Your task to perform on an android device: Open Reddit.com Image 0: 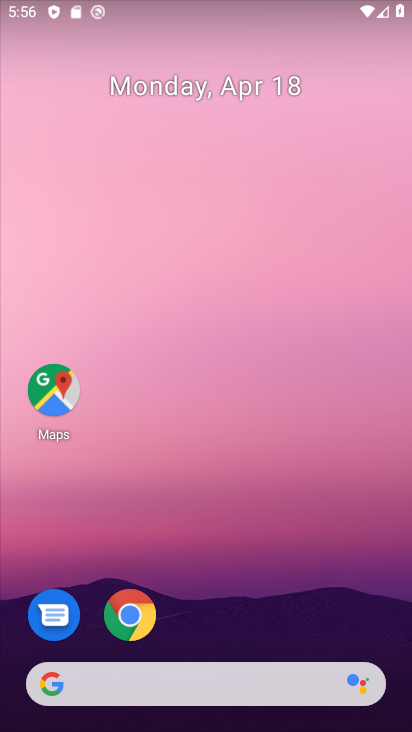
Step 0: drag from (221, 596) to (227, 1)
Your task to perform on an android device: Open Reddit.com Image 1: 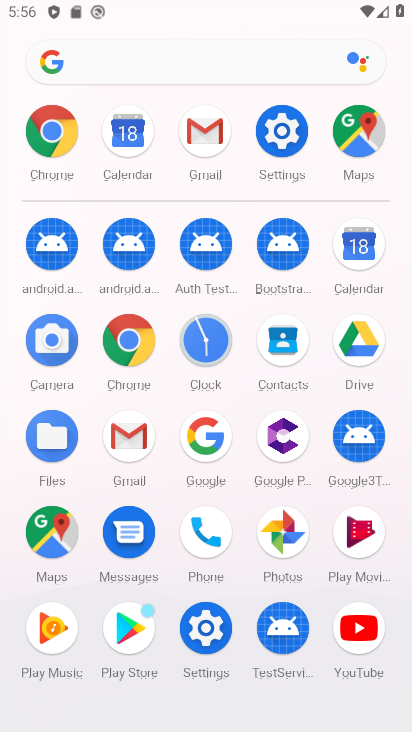
Step 1: click (55, 146)
Your task to perform on an android device: Open Reddit.com Image 2: 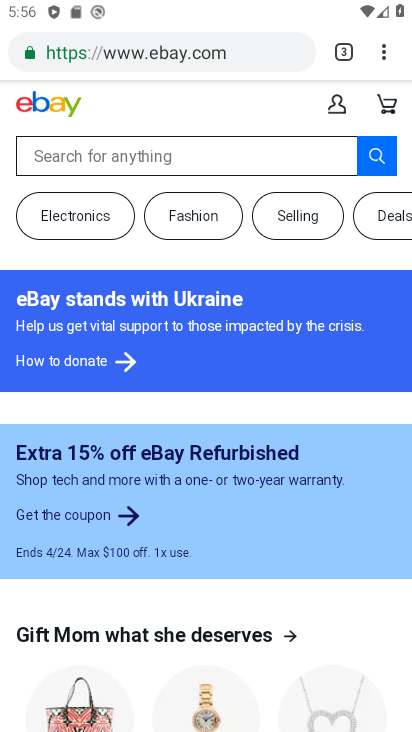
Step 2: click (190, 42)
Your task to perform on an android device: Open Reddit.com Image 3: 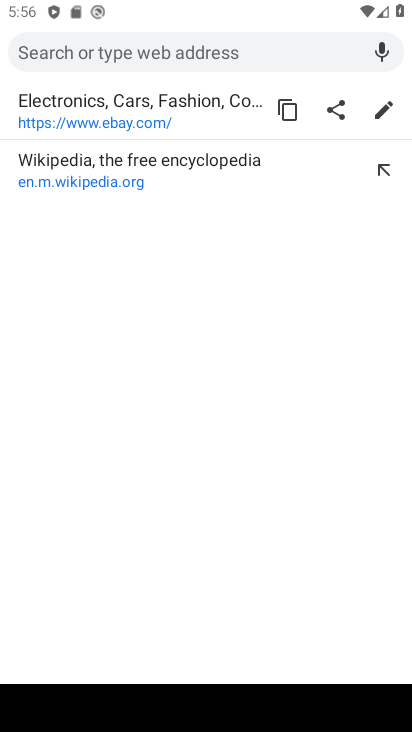
Step 3: click (194, 48)
Your task to perform on an android device: Open Reddit.com Image 4: 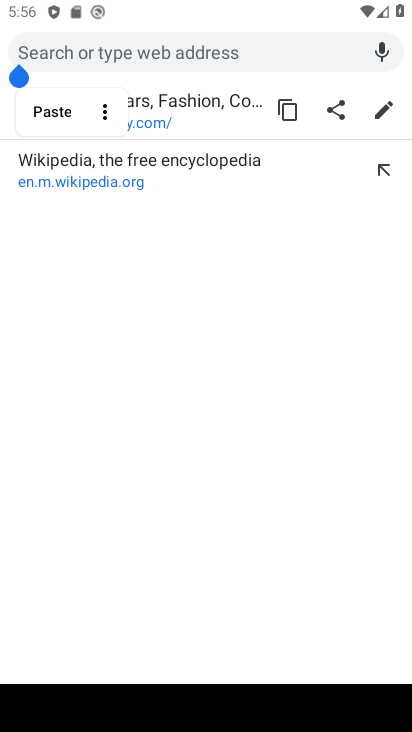
Step 4: type " Reddit.com"
Your task to perform on an android device: Open Reddit.com Image 5: 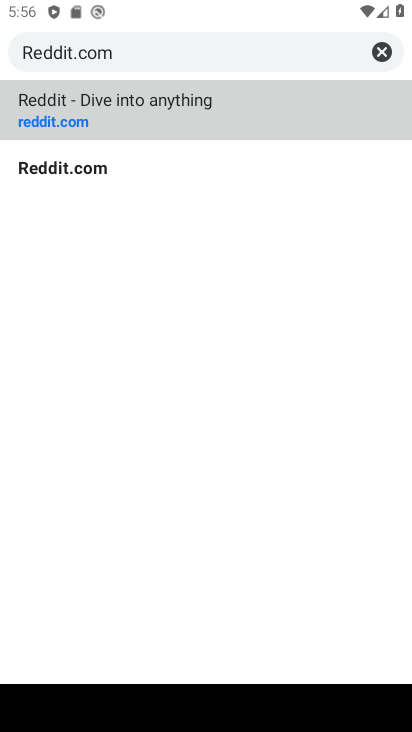
Step 5: click (140, 111)
Your task to perform on an android device: Open Reddit.com Image 6: 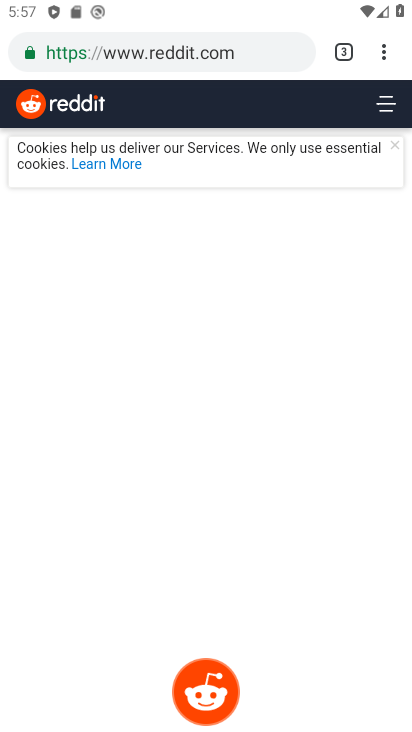
Step 6: task complete